Your task to perform on an android device: Go to internet settings Image 0: 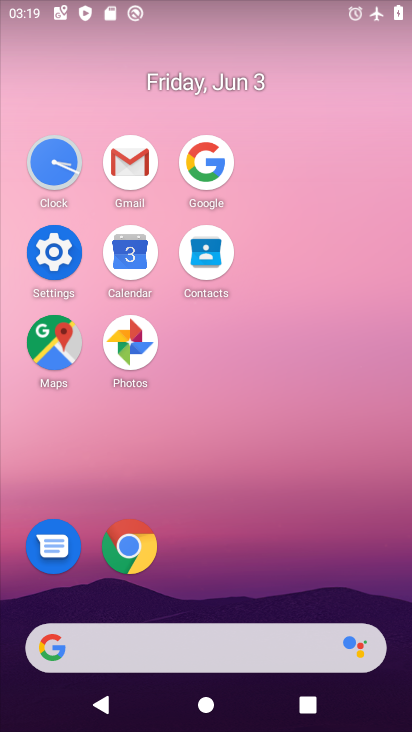
Step 0: click (53, 253)
Your task to perform on an android device: Go to internet settings Image 1: 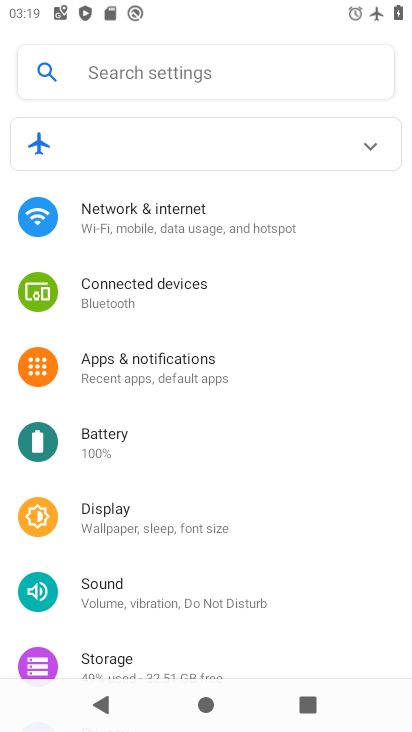
Step 1: click (164, 215)
Your task to perform on an android device: Go to internet settings Image 2: 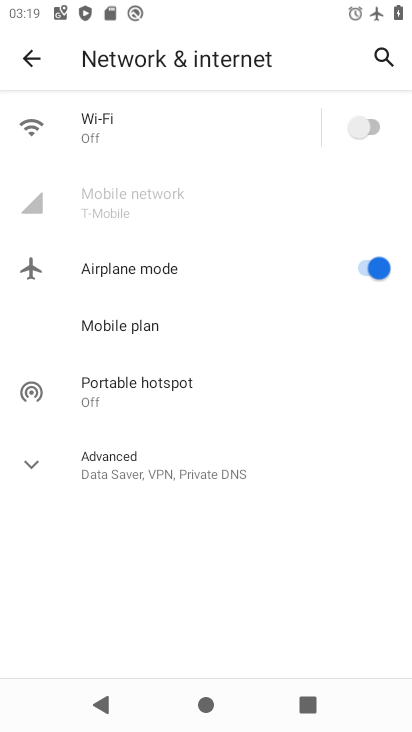
Step 2: task complete